Your task to perform on an android device: turn notification dots off Image 0: 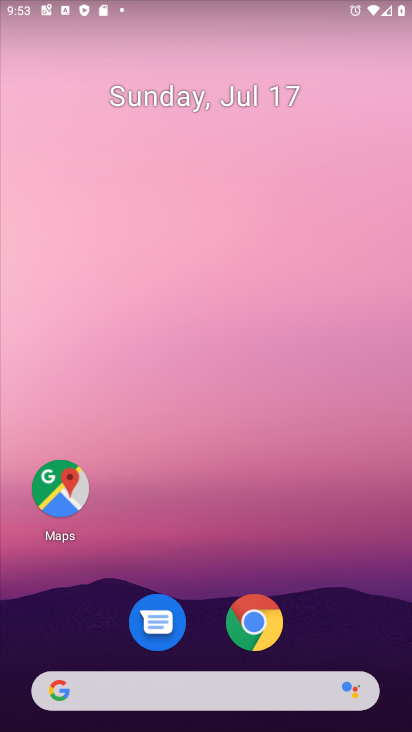
Step 0: drag from (249, 662) to (217, 15)
Your task to perform on an android device: turn notification dots off Image 1: 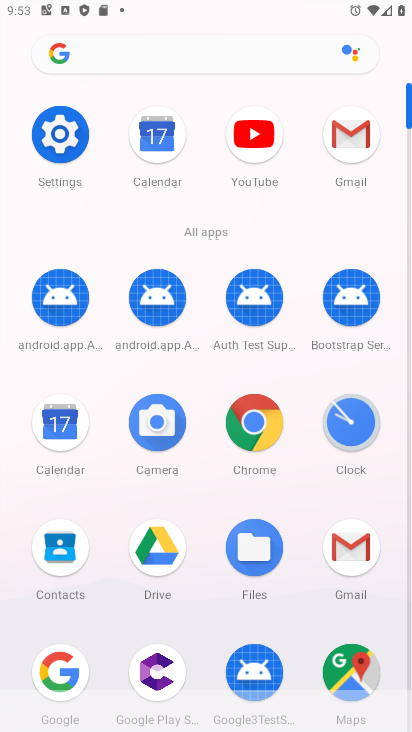
Step 1: click (52, 133)
Your task to perform on an android device: turn notification dots off Image 2: 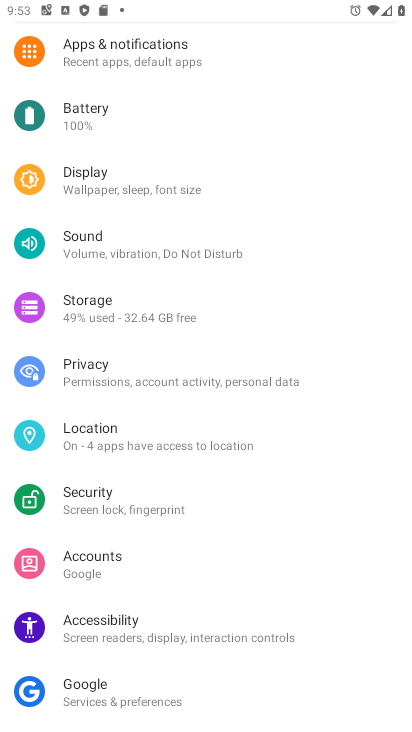
Step 2: click (204, 54)
Your task to perform on an android device: turn notification dots off Image 3: 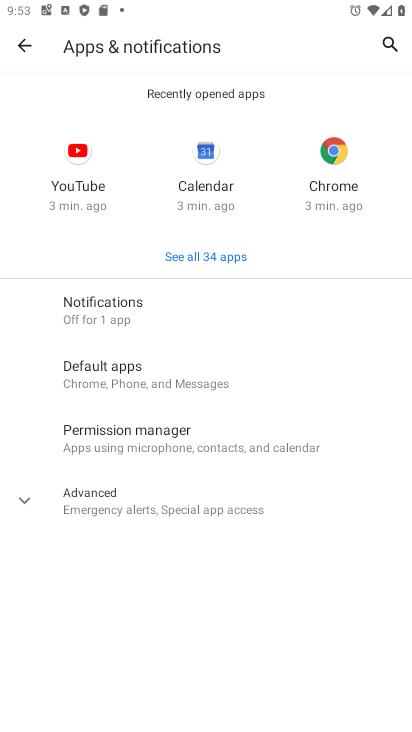
Step 3: click (135, 301)
Your task to perform on an android device: turn notification dots off Image 4: 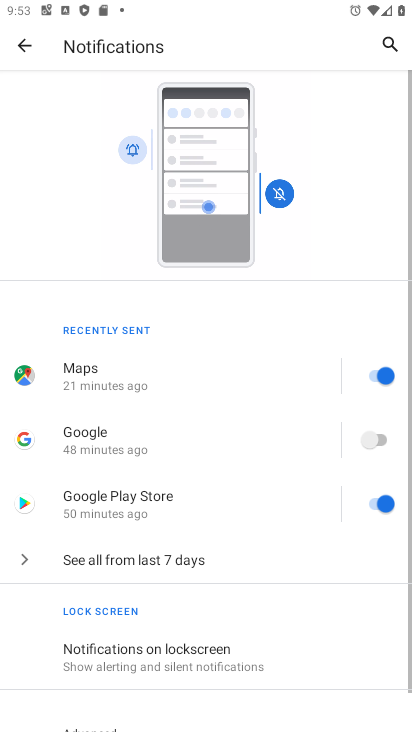
Step 4: drag from (248, 547) to (248, 116)
Your task to perform on an android device: turn notification dots off Image 5: 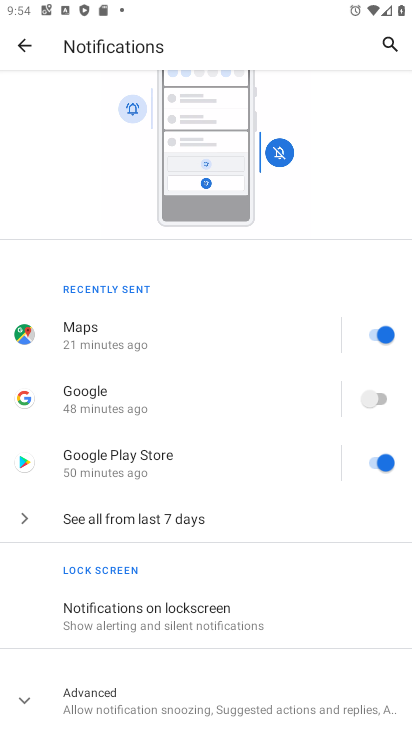
Step 5: click (166, 705)
Your task to perform on an android device: turn notification dots off Image 6: 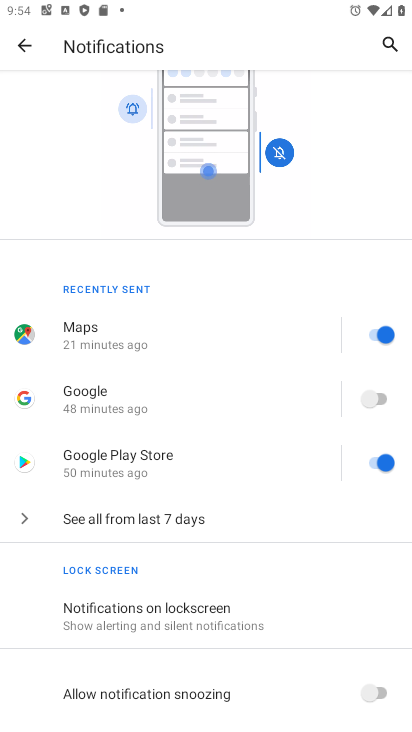
Step 6: drag from (271, 685) to (254, 183)
Your task to perform on an android device: turn notification dots off Image 7: 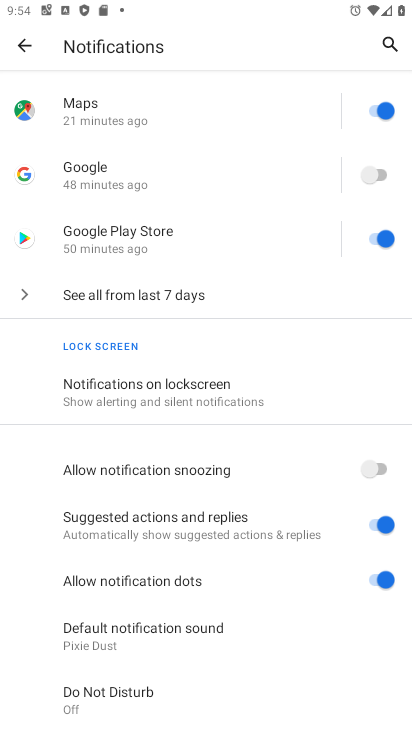
Step 7: click (376, 577)
Your task to perform on an android device: turn notification dots off Image 8: 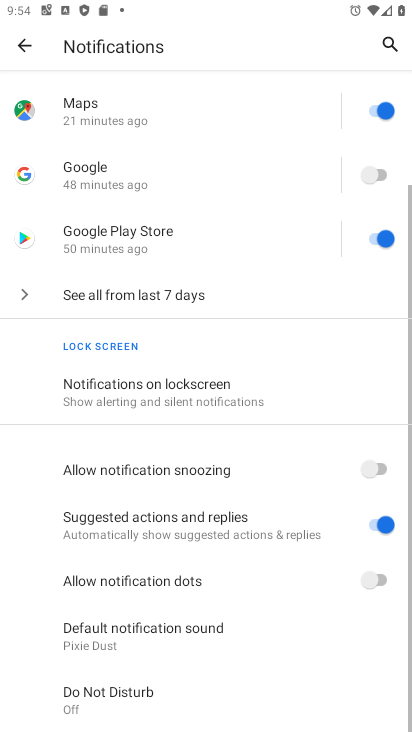
Step 8: task complete